Your task to perform on an android device: Open Wikipedia Image 0: 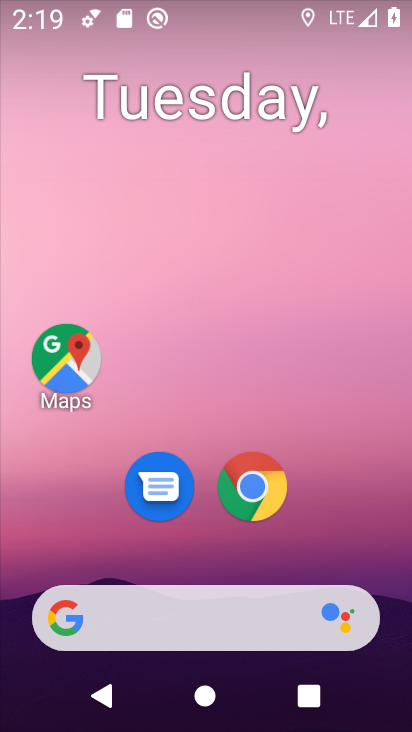
Step 0: press home button
Your task to perform on an android device: Open Wikipedia Image 1: 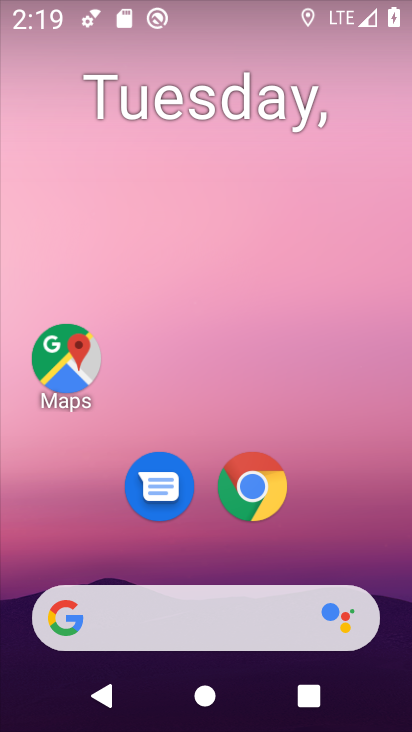
Step 1: drag from (380, 487) to (347, 66)
Your task to perform on an android device: Open Wikipedia Image 2: 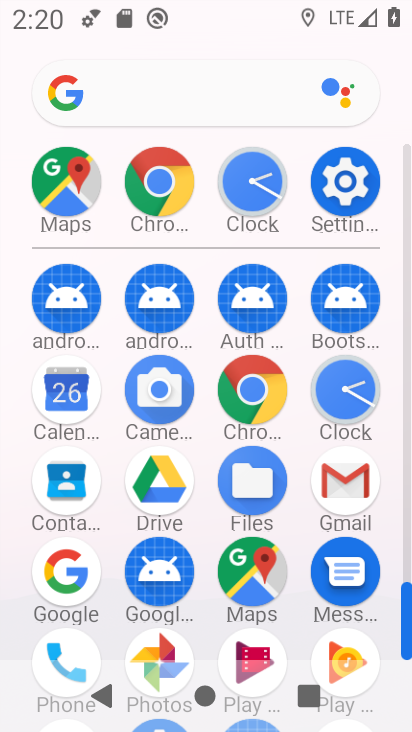
Step 2: click (254, 384)
Your task to perform on an android device: Open Wikipedia Image 3: 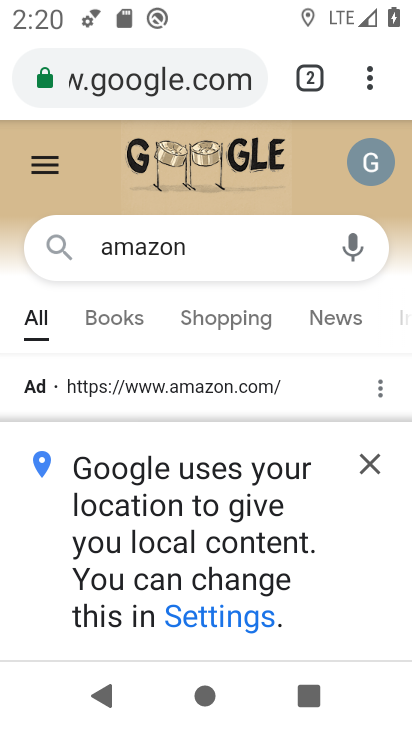
Step 3: click (208, 80)
Your task to perform on an android device: Open Wikipedia Image 4: 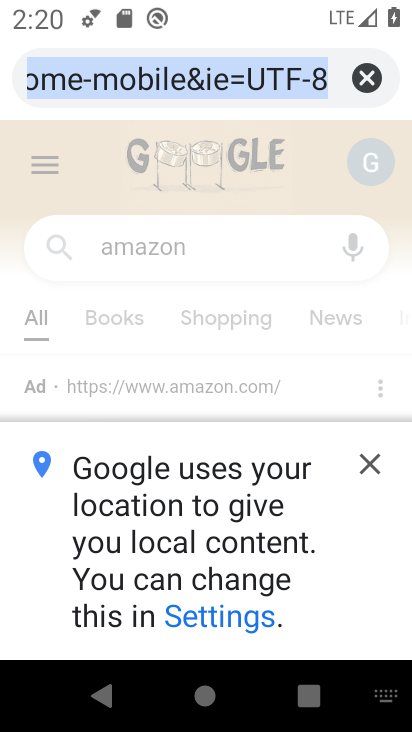
Step 4: type "wikipedia"
Your task to perform on an android device: Open Wikipedia Image 5: 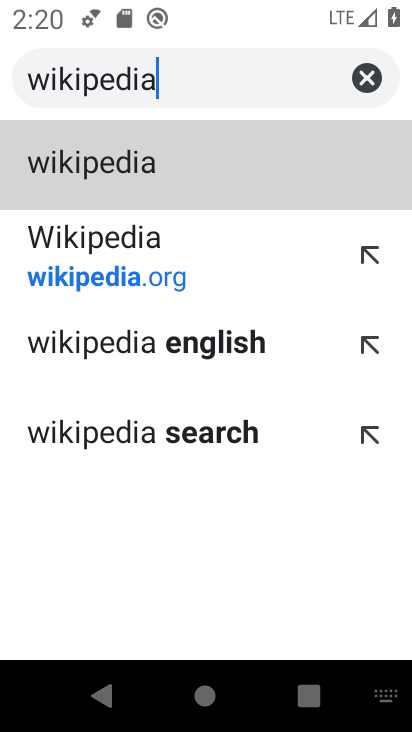
Step 5: click (171, 179)
Your task to perform on an android device: Open Wikipedia Image 6: 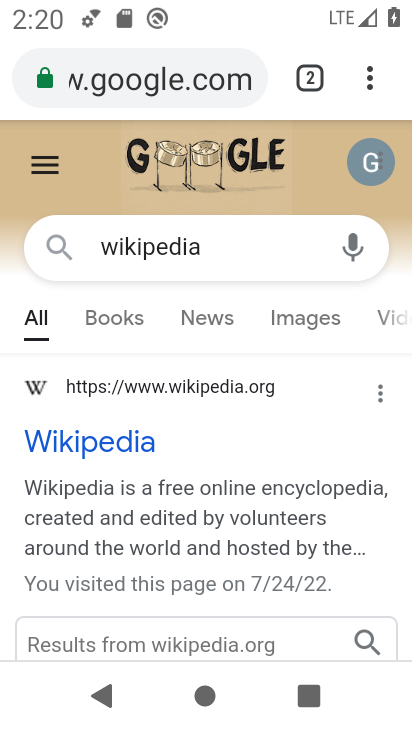
Step 6: task complete